Your task to perform on an android device: Do I have any events today? Image 0: 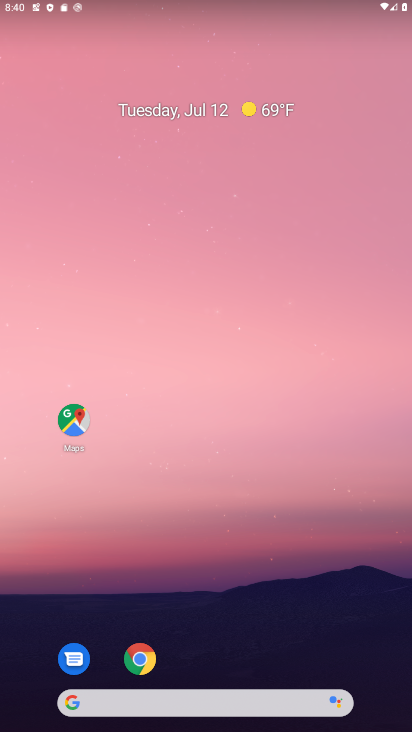
Step 0: drag from (220, 712) to (225, 94)
Your task to perform on an android device: Do I have any events today? Image 1: 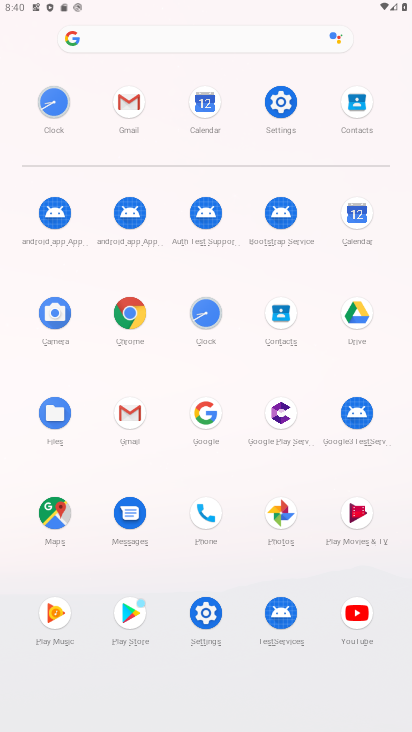
Step 1: click (354, 207)
Your task to perform on an android device: Do I have any events today? Image 2: 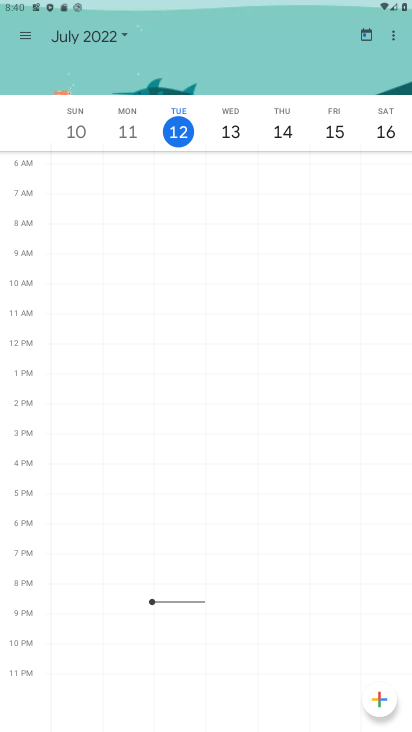
Step 2: click (173, 132)
Your task to perform on an android device: Do I have any events today? Image 3: 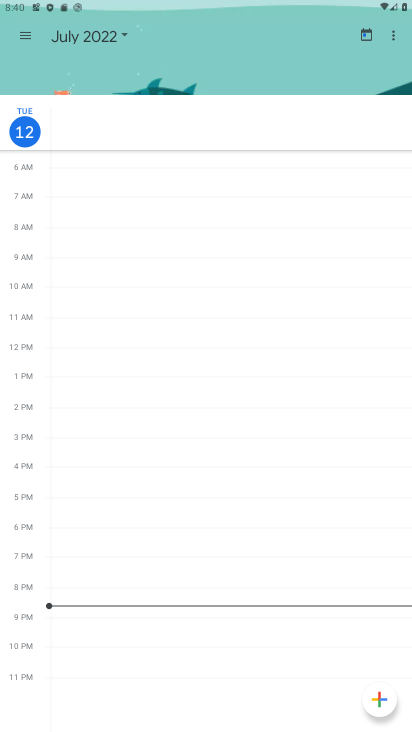
Step 3: task complete